Your task to perform on an android device: Open Android settings Image 0: 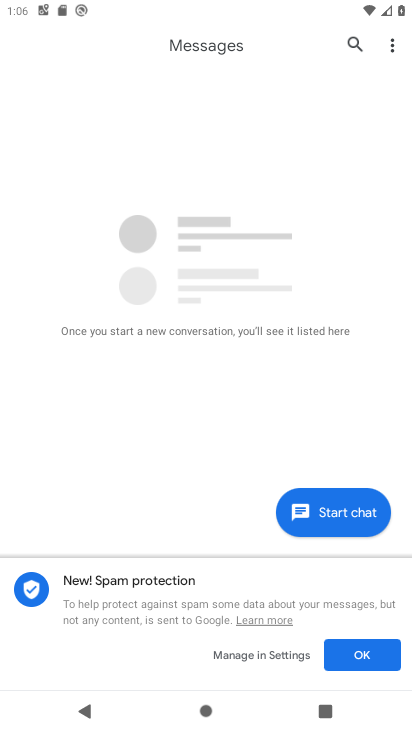
Step 0: press home button
Your task to perform on an android device: Open Android settings Image 1: 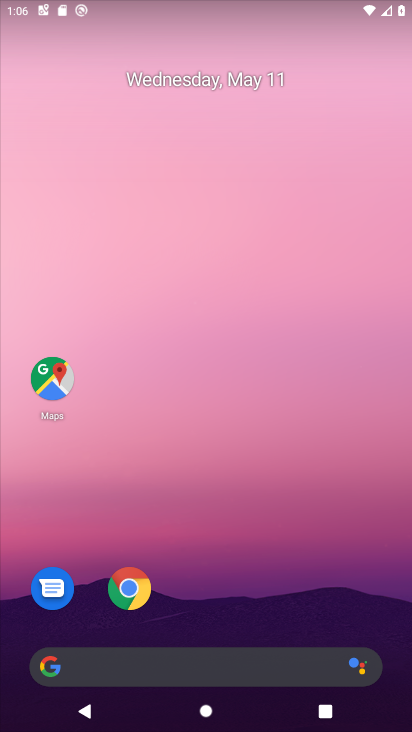
Step 1: drag from (205, 650) to (292, 283)
Your task to perform on an android device: Open Android settings Image 2: 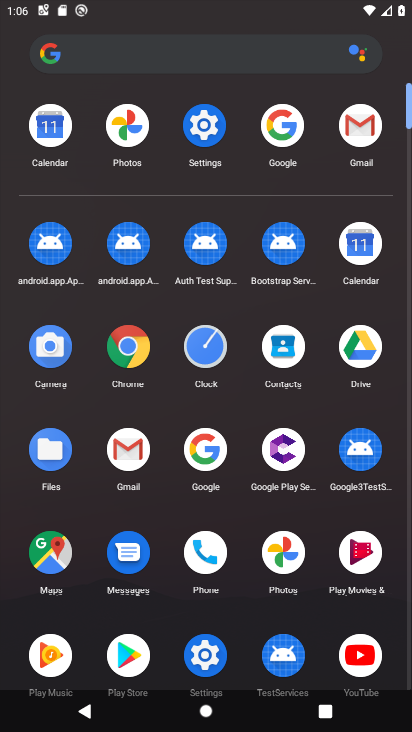
Step 2: click (216, 121)
Your task to perform on an android device: Open Android settings Image 3: 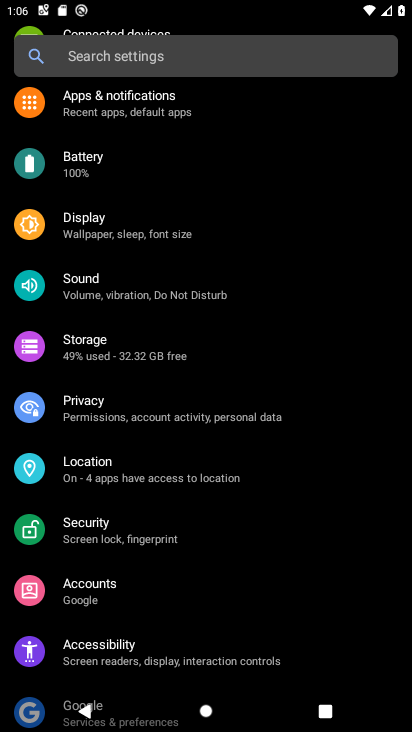
Step 3: task complete